Your task to perform on an android device: uninstall "File Manager" Image 0: 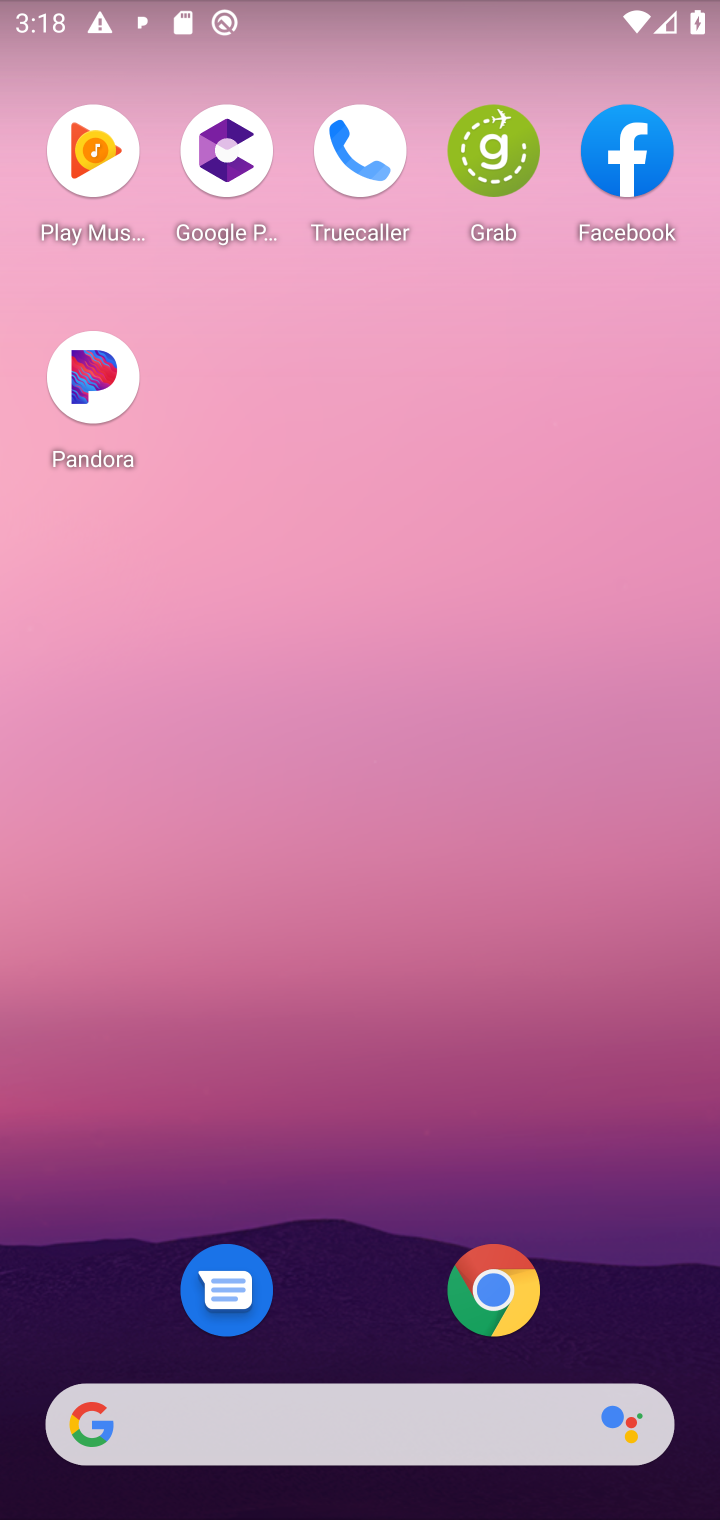
Step 0: drag from (392, 1338) to (284, 20)
Your task to perform on an android device: uninstall "File Manager" Image 1: 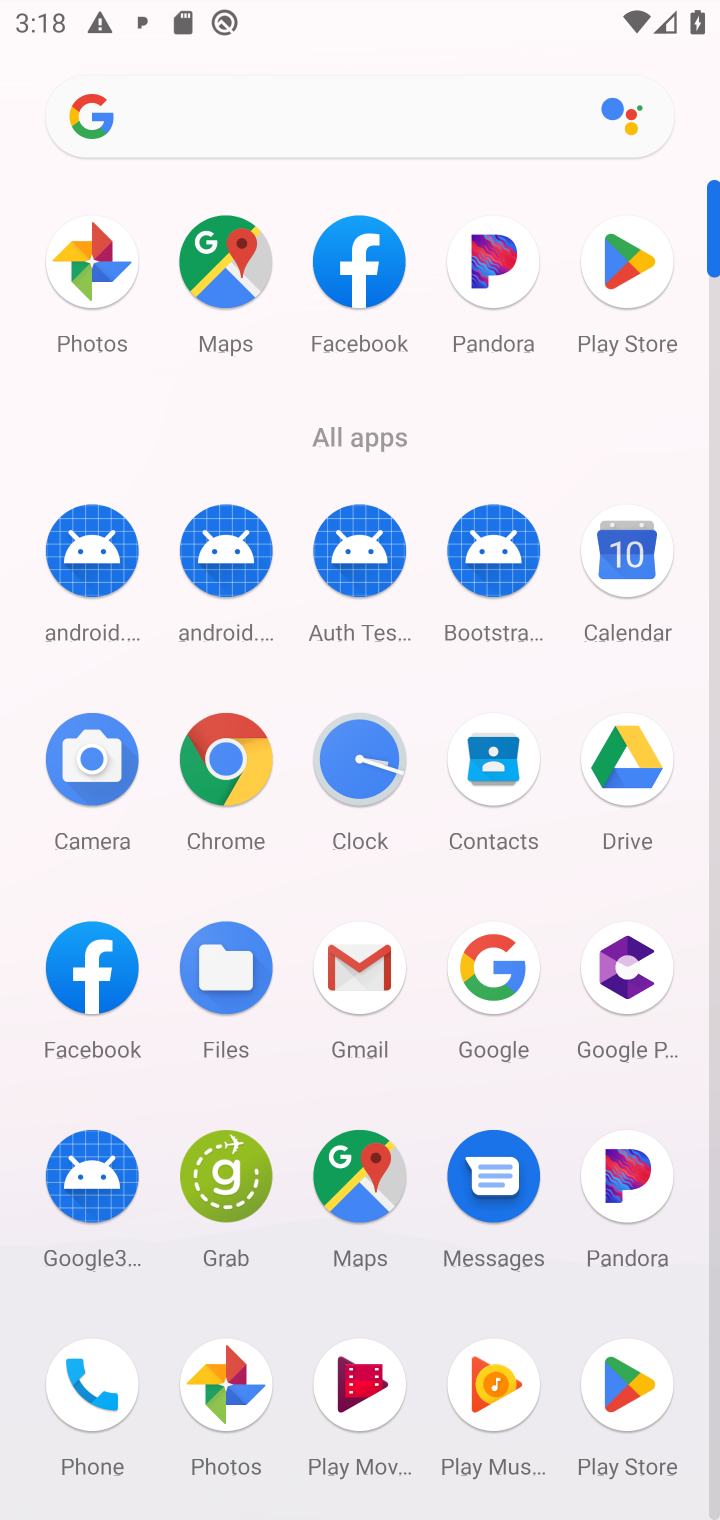
Step 1: click (610, 1396)
Your task to perform on an android device: uninstall "File Manager" Image 2: 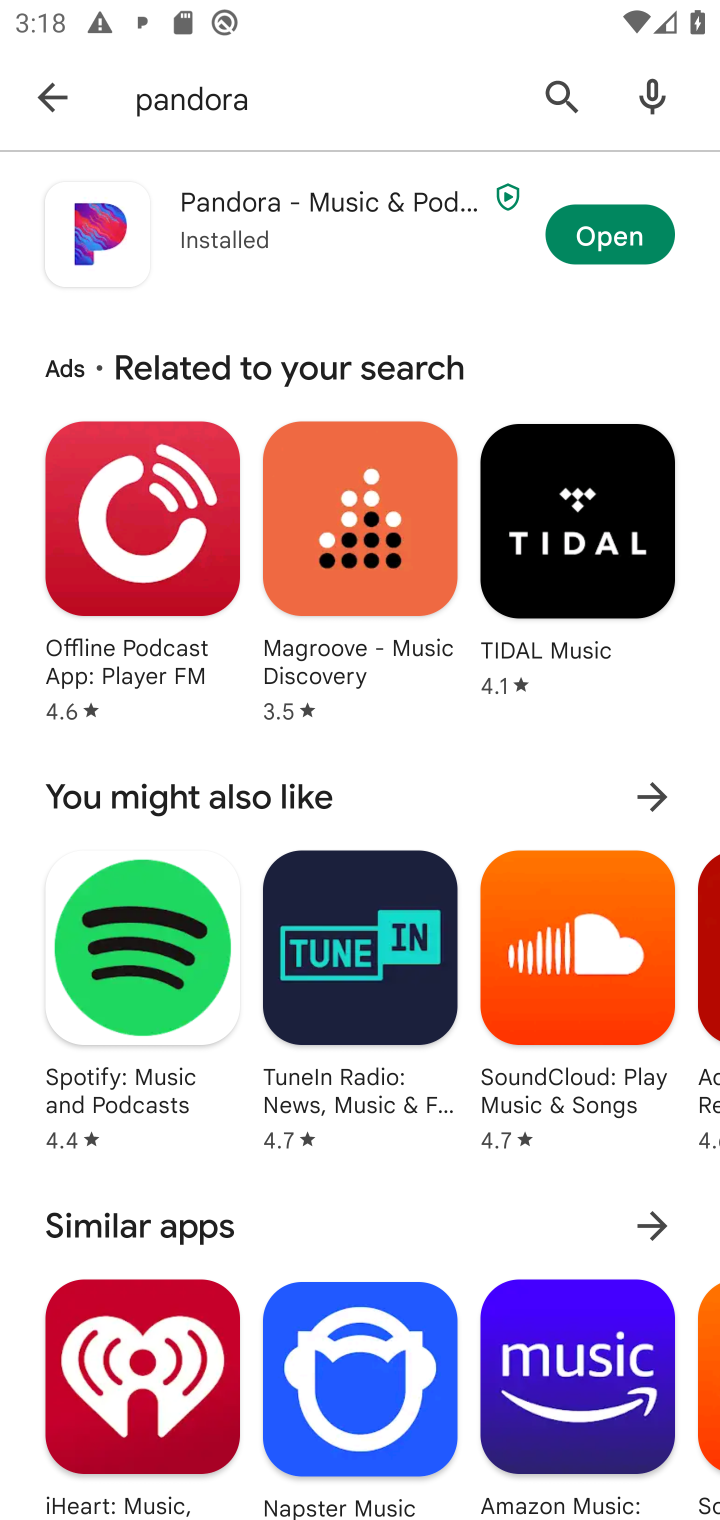
Step 2: click (564, 92)
Your task to perform on an android device: uninstall "File Manager" Image 3: 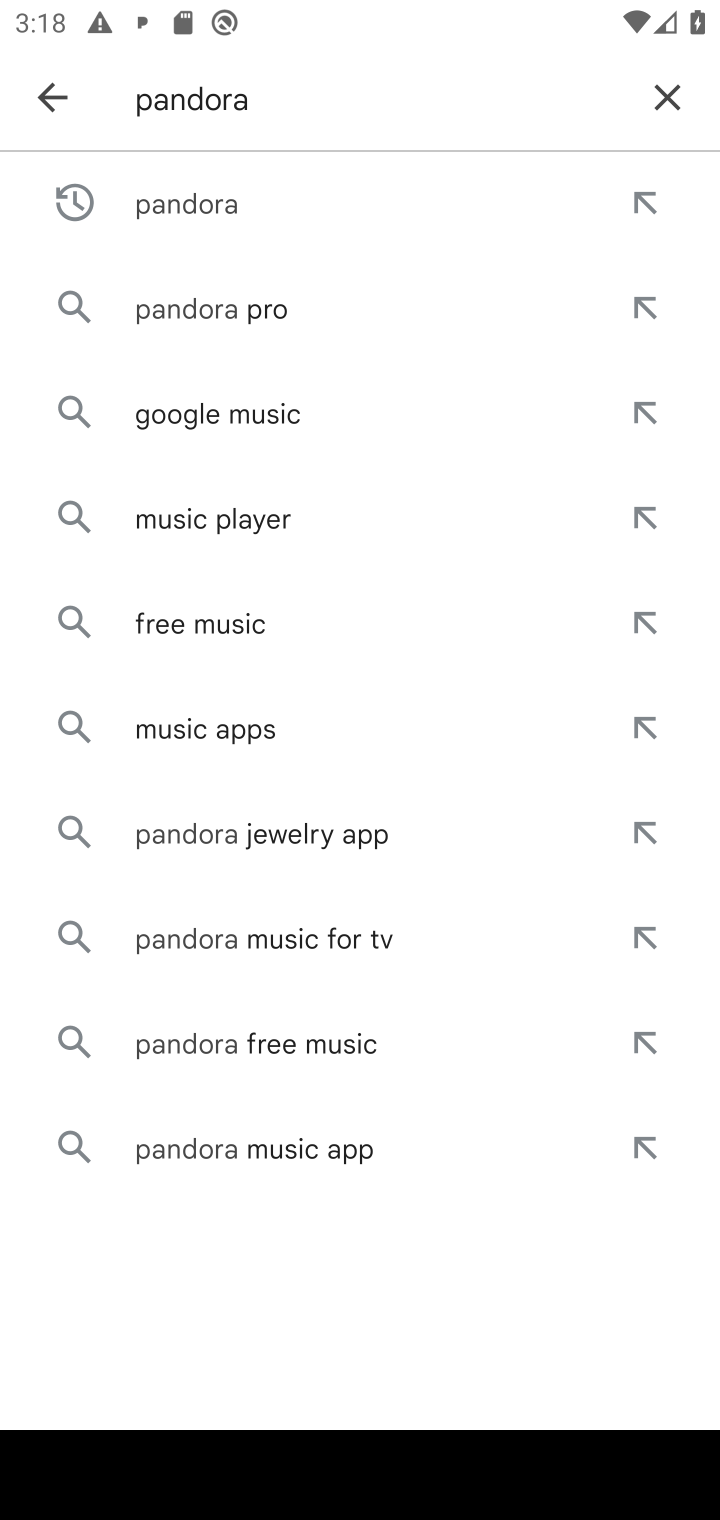
Step 3: click (667, 107)
Your task to perform on an android device: uninstall "File Manager" Image 4: 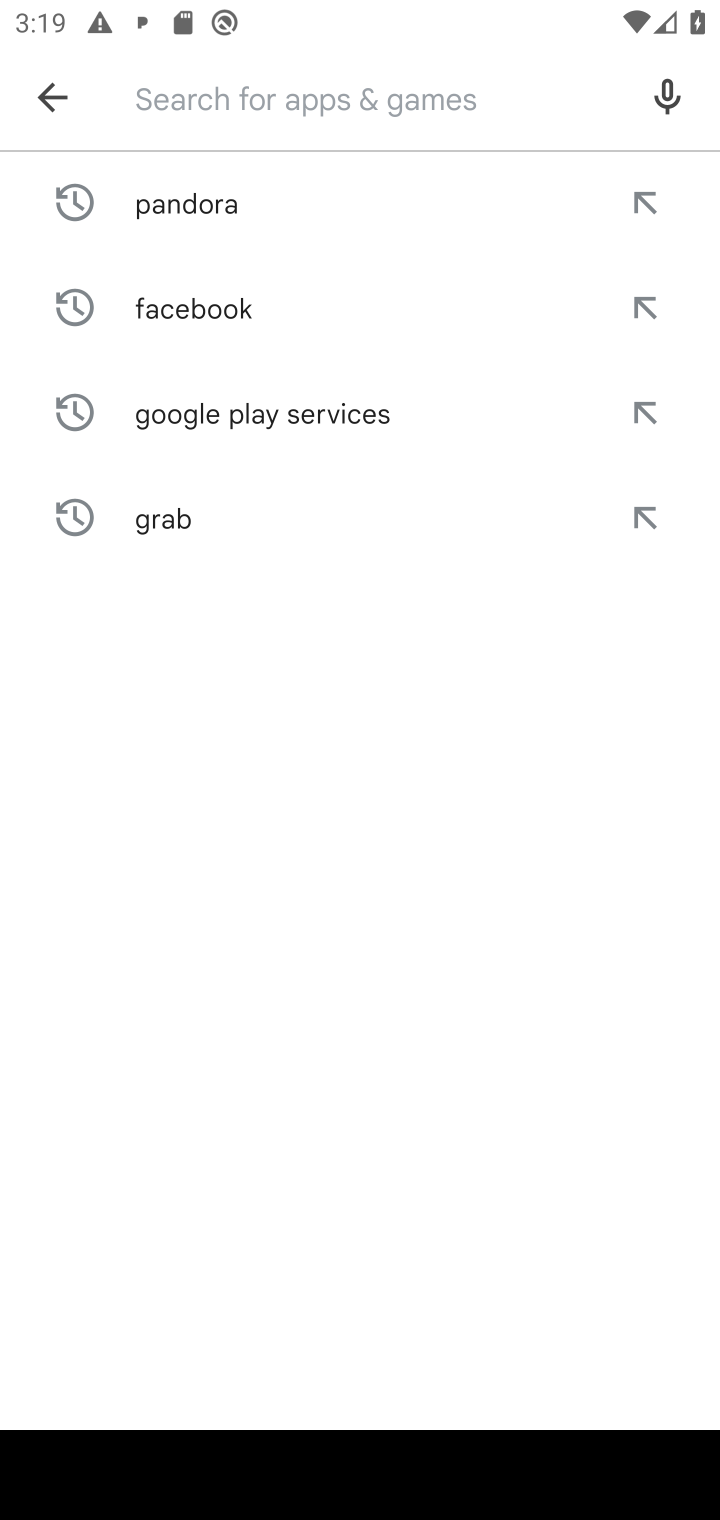
Step 4: type "File Manage"
Your task to perform on an android device: uninstall "File Manager" Image 5: 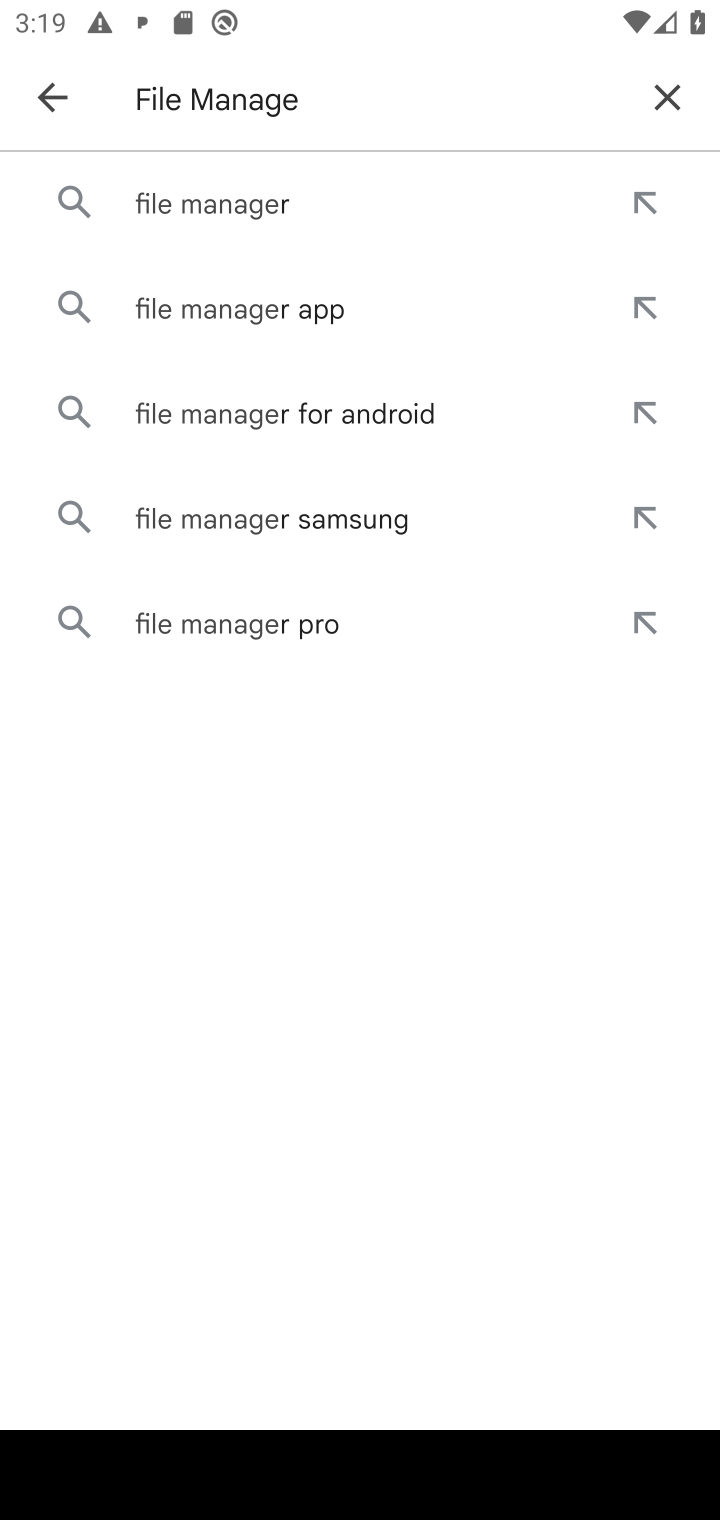
Step 5: click (192, 225)
Your task to perform on an android device: uninstall "File Manager" Image 6: 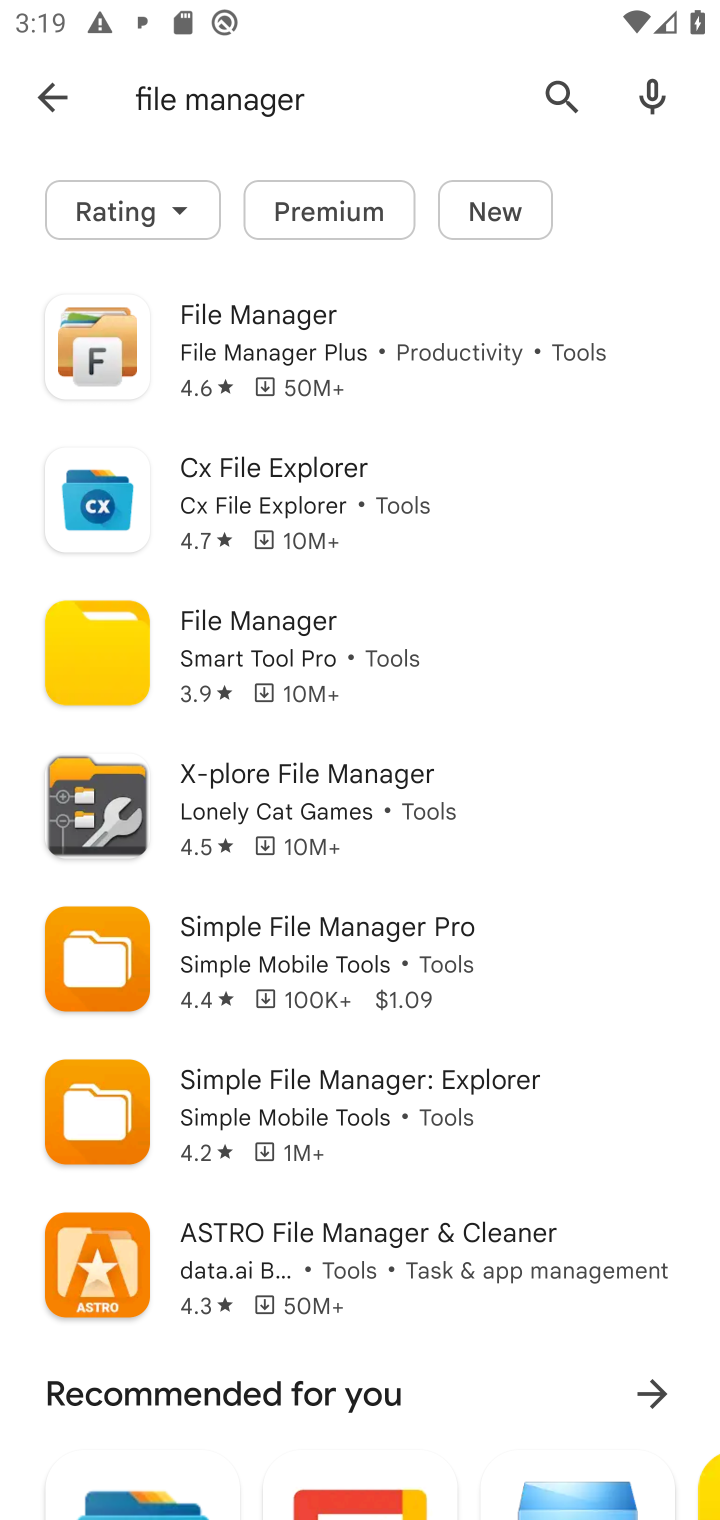
Step 6: click (276, 317)
Your task to perform on an android device: uninstall "File Manager" Image 7: 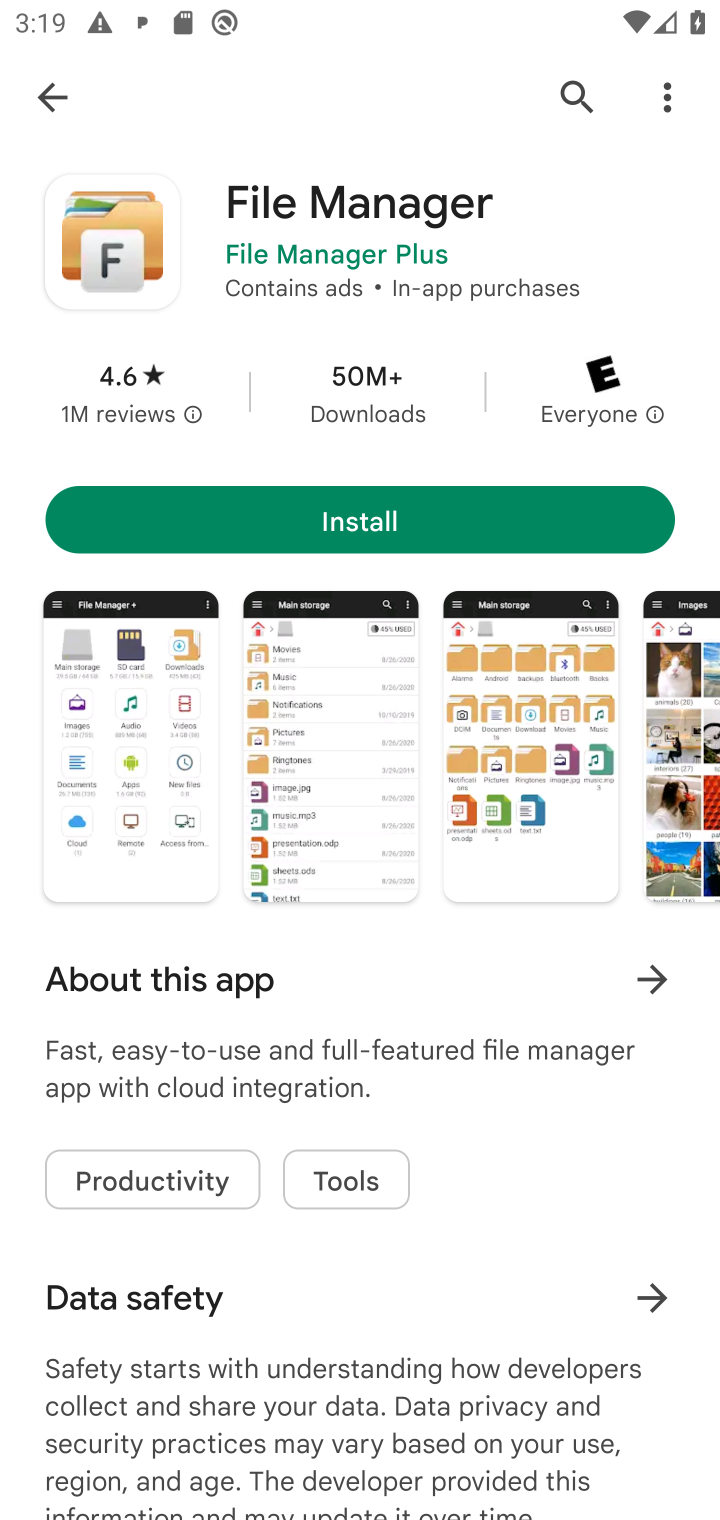
Step 7: task complete